Your task to perform on an android device: Go to accessibility settings Image 0: 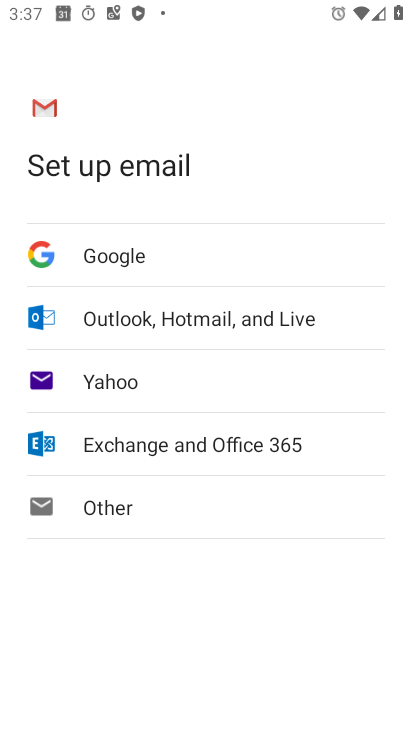
Step 0: press home button
Your task to perform on an android device: Go to accessibility settings Image 1: 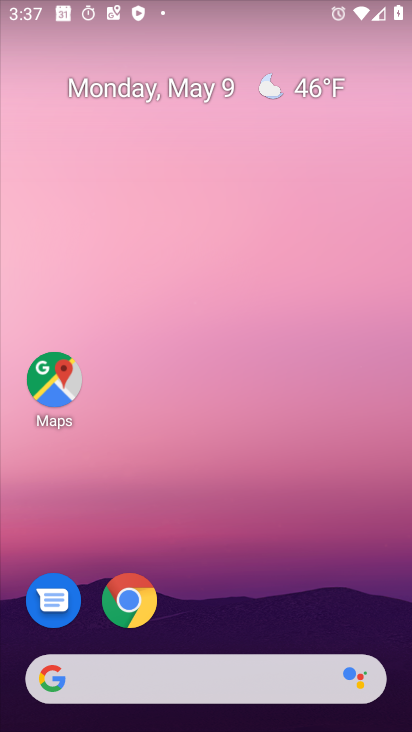
Step 1: drag from (169, 617) to (295, 89)
Your task to perform on an android device: Go to accessibility settings Image 2: 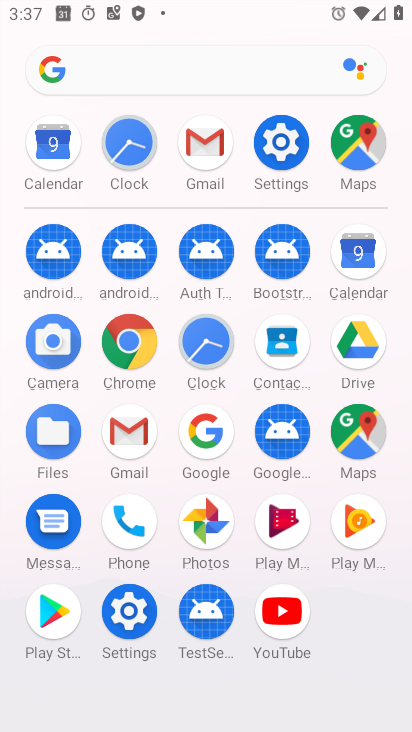
Step 2: click (285, 143)
Your task to perform on an android device: Go to accessibility settings Image 3: 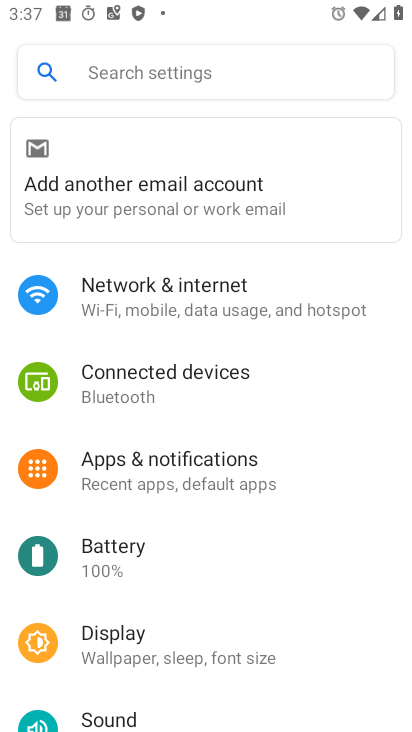
Step 3: drag from (139, 635) to (254, 141)
Your task to perform on an android device: Go to accessibility settings Image 4: 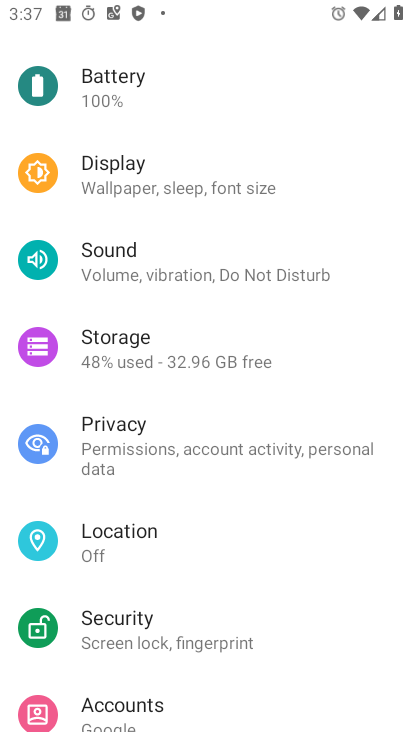
Step 4: drag from (140, 621) to (246, 123)
Your task to perform on an android device: Go to accessibility settings Image 5: 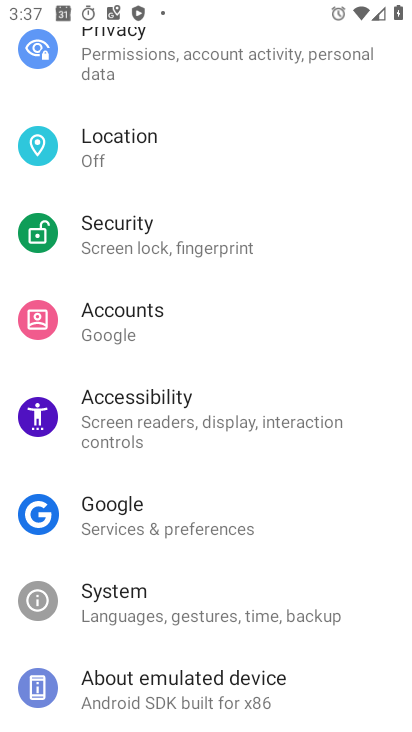
Step 5: click (144, 407)
Your task to perform on an android device: Go to accessibility settings Image 6: 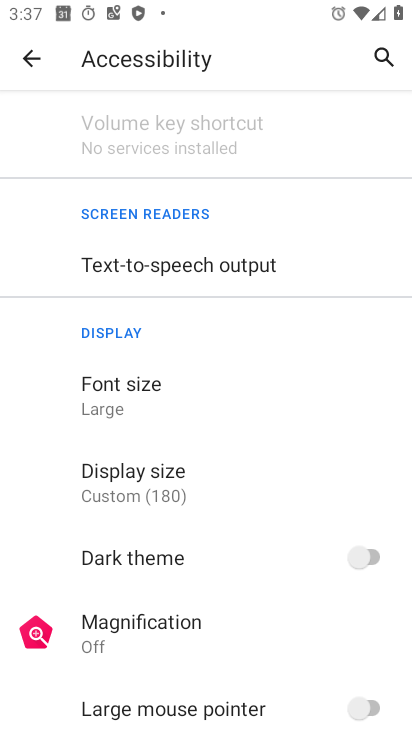
Step 6: task complete